Your task to perform on an android device: Search for the best way to make a resume. Image 0: 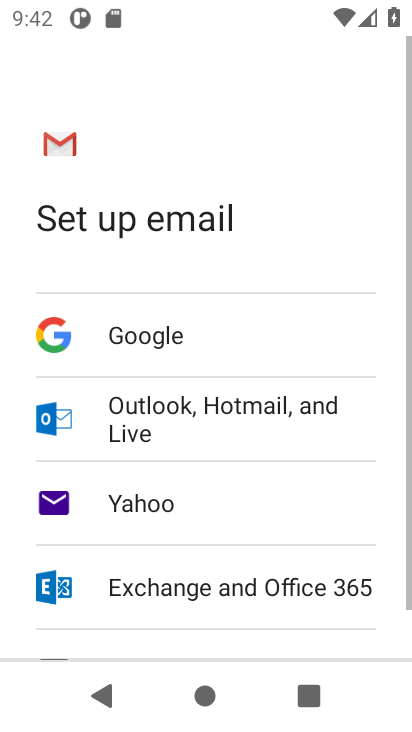
Step 0: click (226, 415)
Your task to perform on an android device: Search for the best way to make a resume. Image 1: 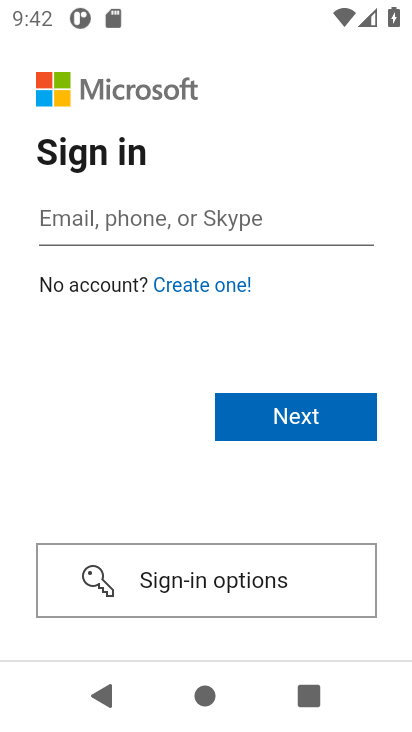
Step 1: task complete